Your task to perform on an android device: turn on improve location accuracy Image 0: 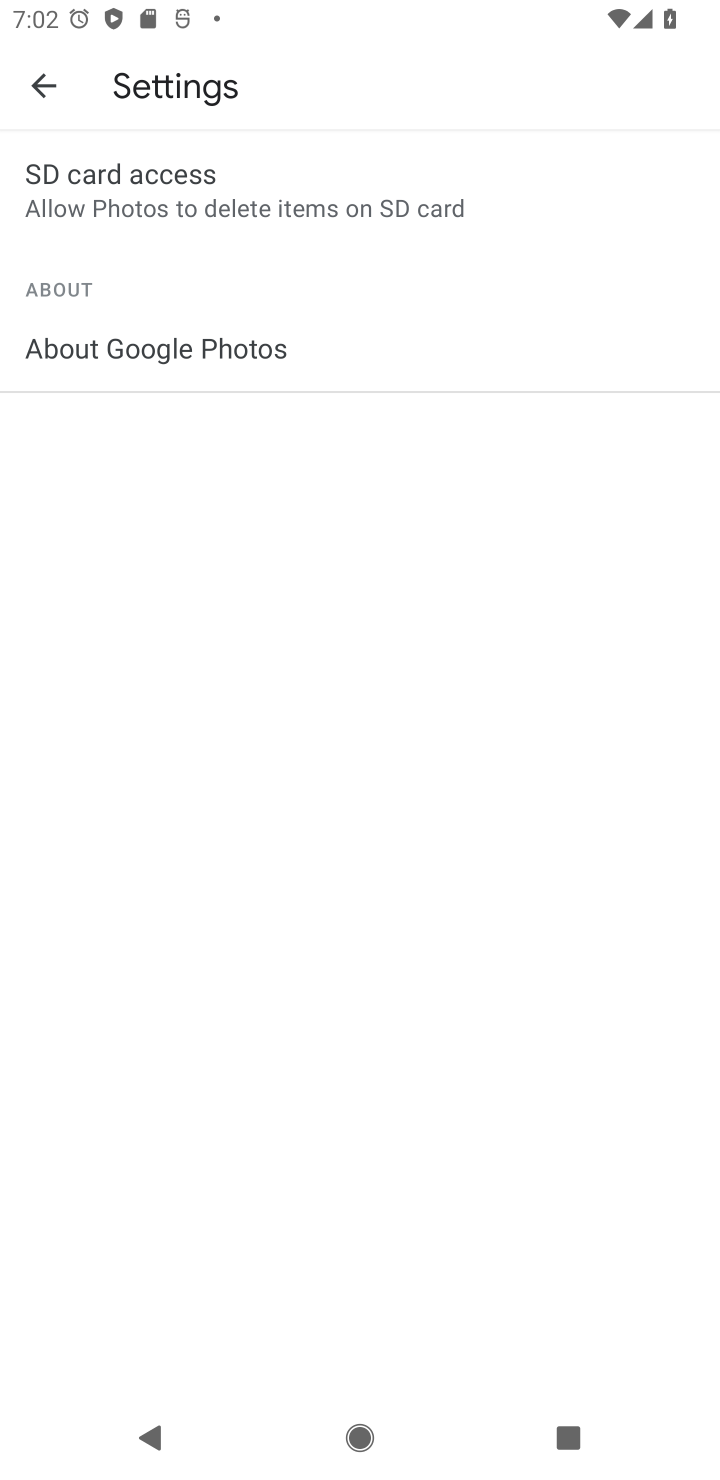
Step 0: press home button
Your task to perform on an android device: turn on improve location accuracy Image 1: 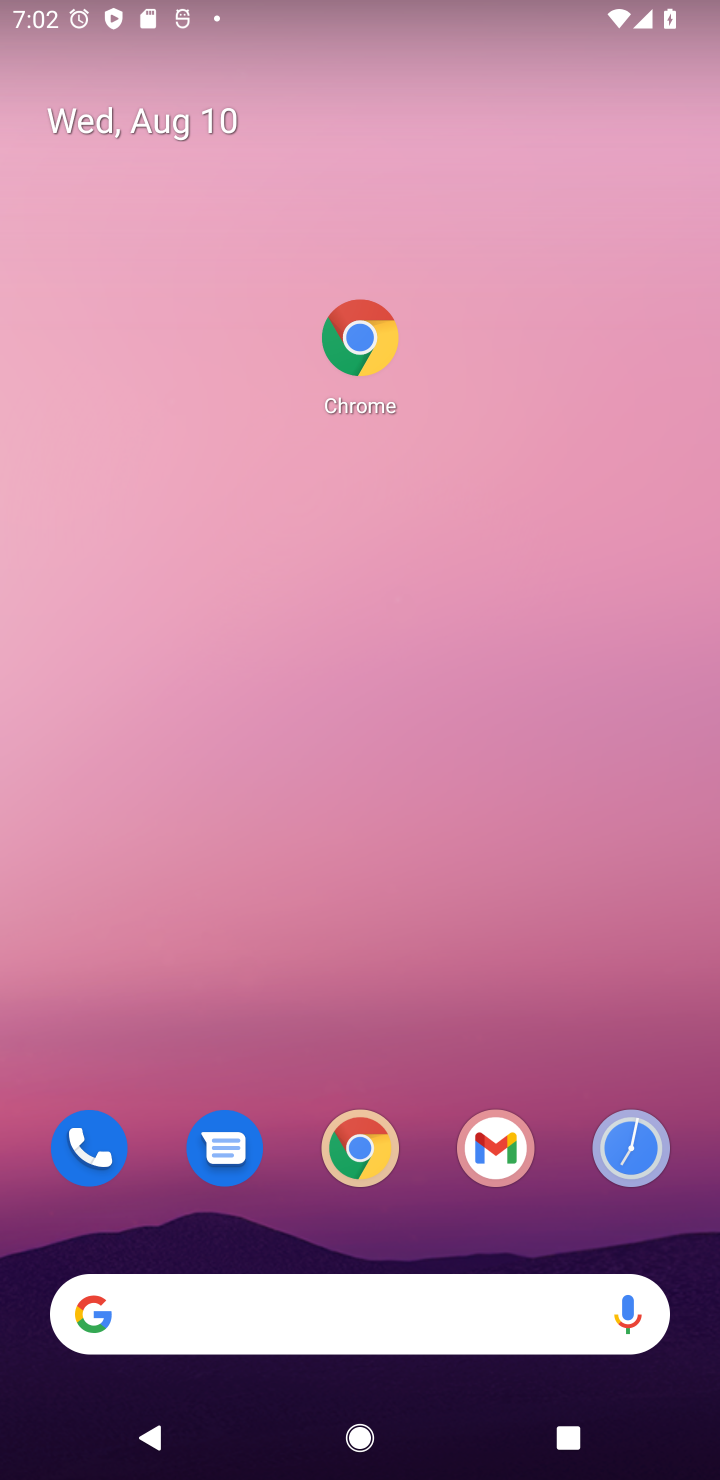
Step 1: drag from (305, 1046) to (253, 360)
Your task to perform on an android device: turn on improve location accuracy Image 2: 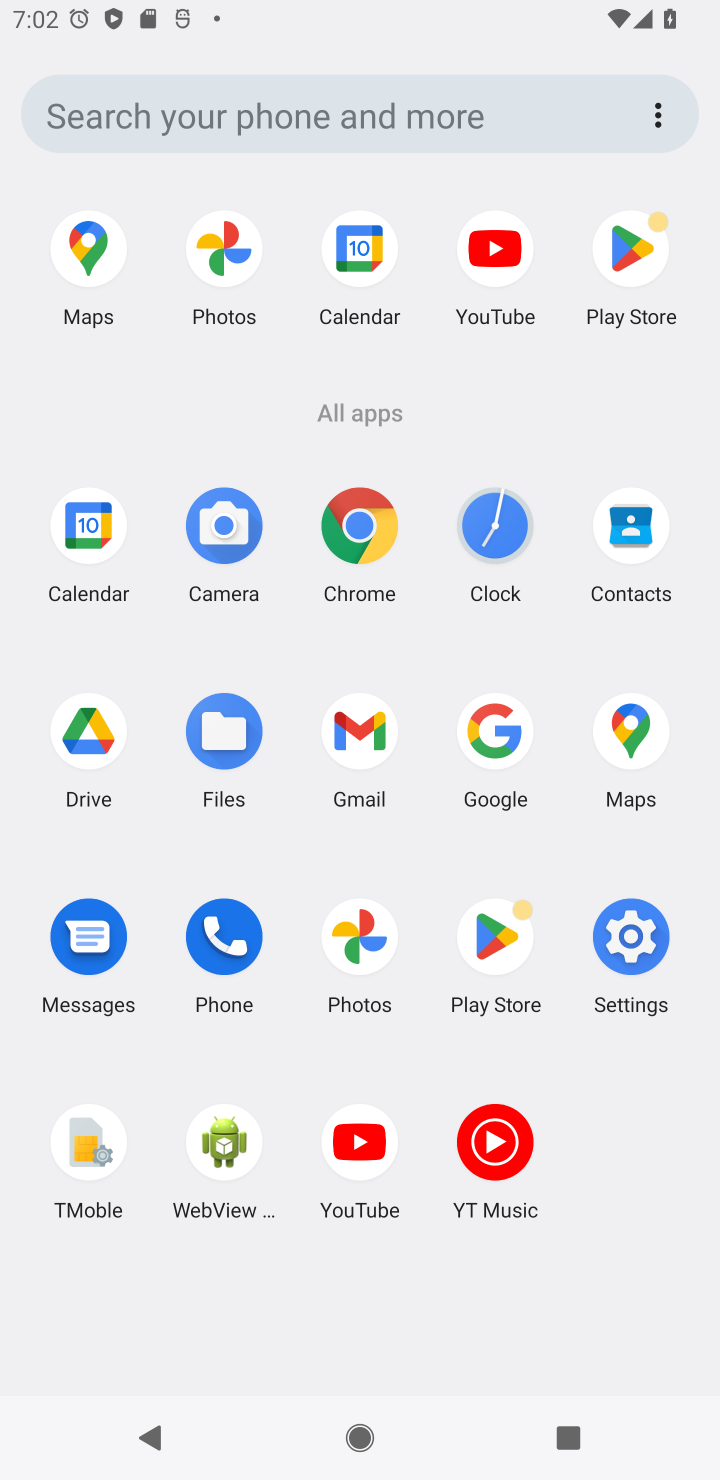
Step 2: click (622, 963)
Your task to perform on an android device: turn on improve location accuracy Image 3: 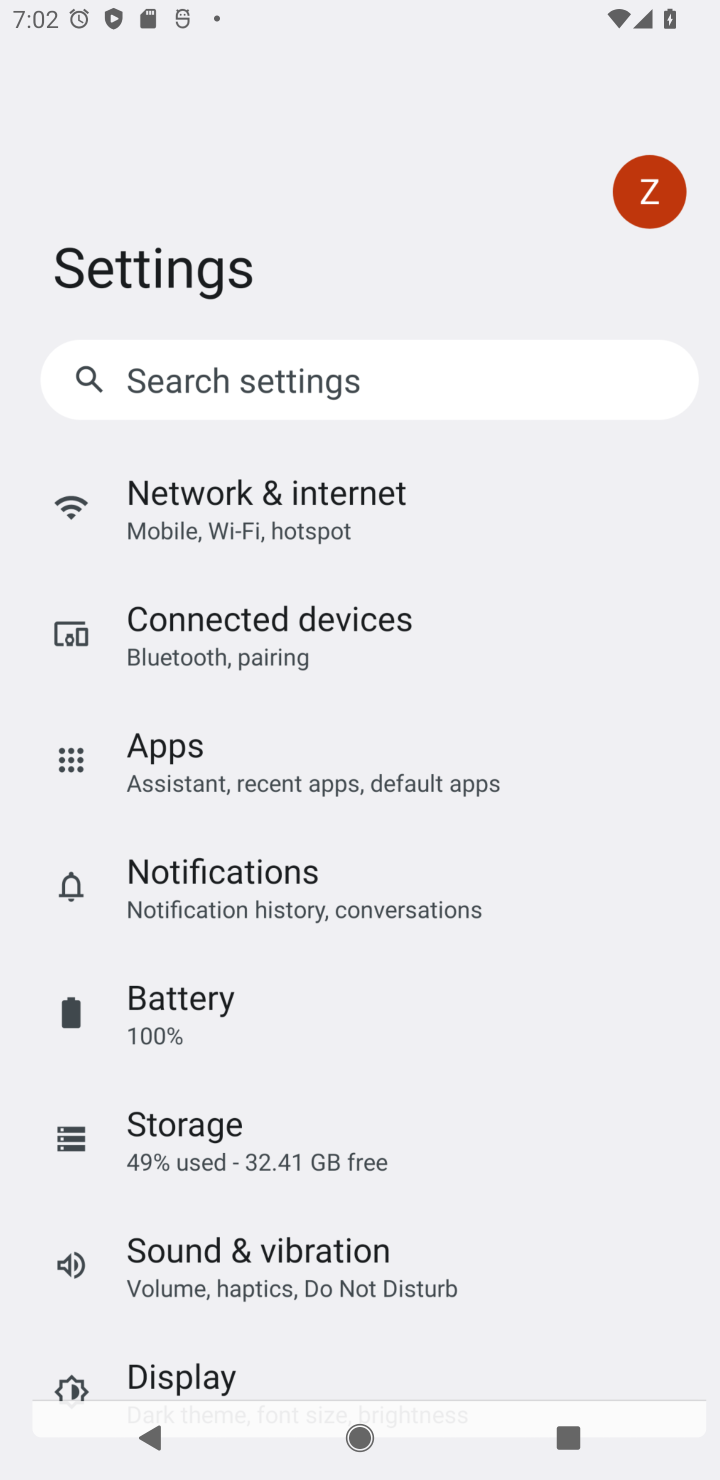
Step 3: click (622, 963)
Your task to perform on an android device: turn on improve location accuracy Image 4: 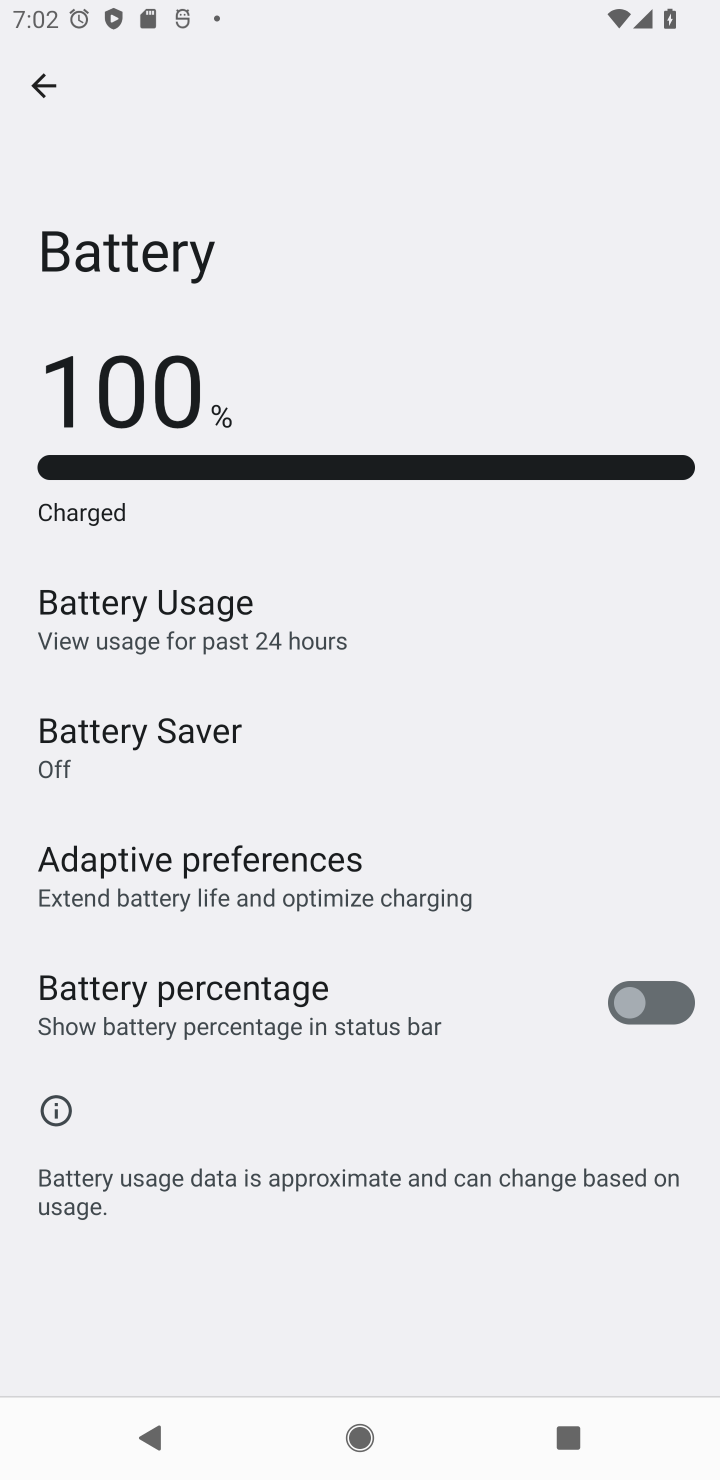
Step 4: click (42, 72)
Your task to perform on an android device: turn on improve location accuracy Image 5: 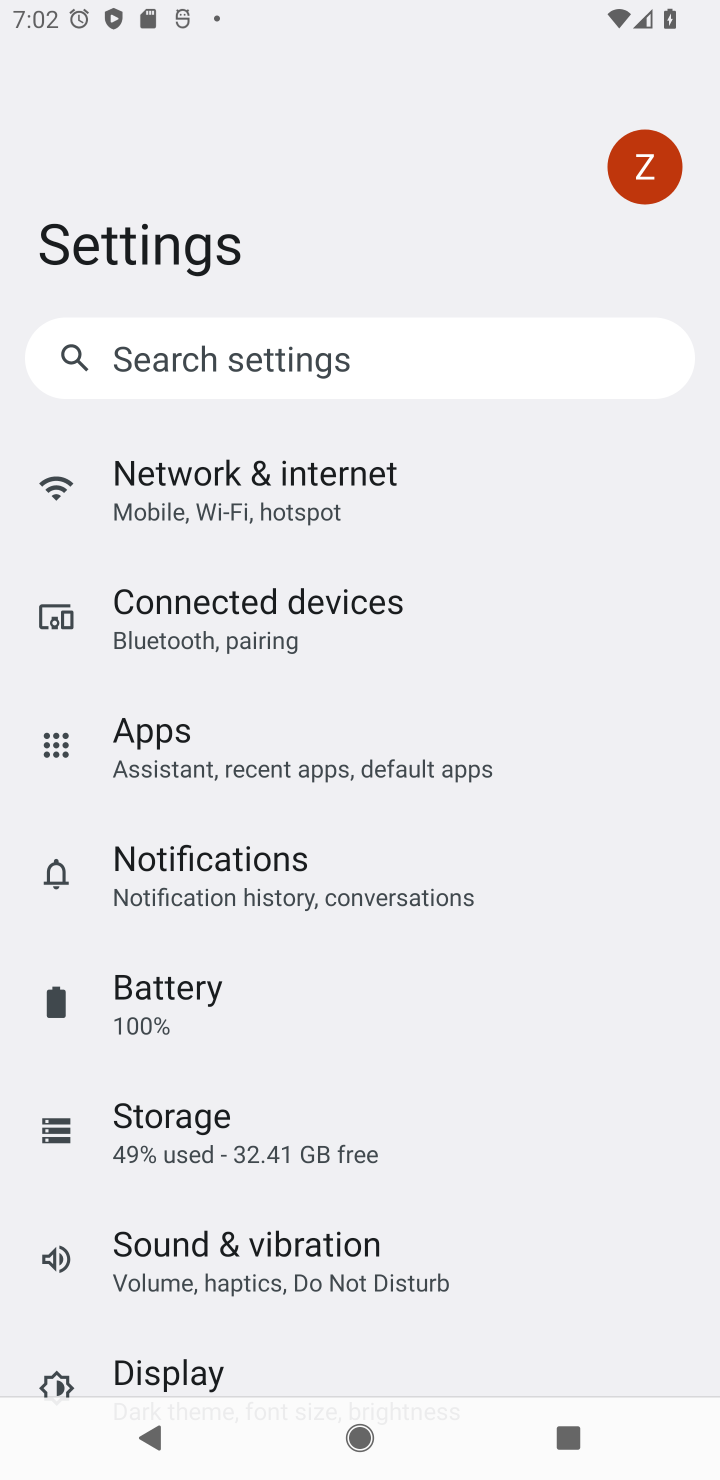
Step 5: drag from (308, 1065) to (134, 332)
Your task to perform on an android device: turn on improve location accuracy Image 6: 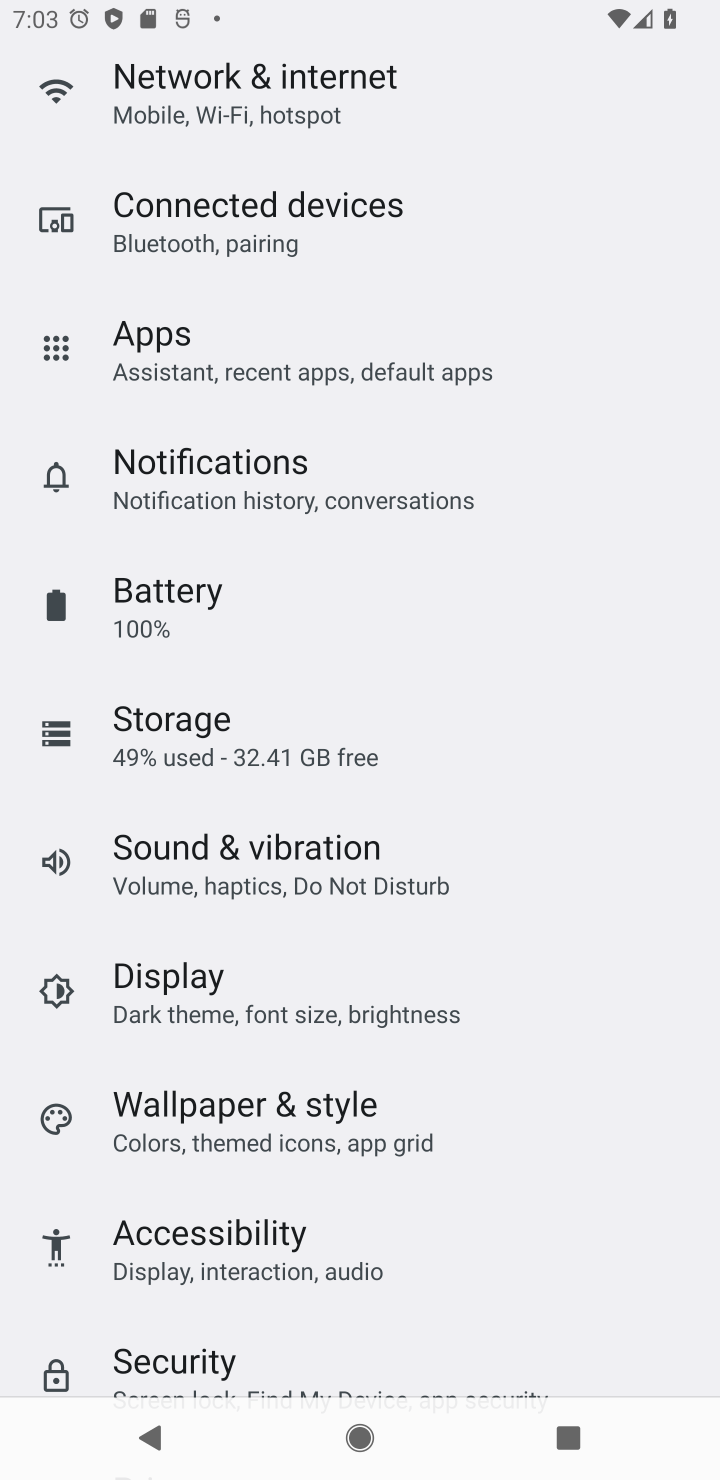
Step 6: drag from (585, 1139) to (485, 560)
Your task to perform on an android device: turn on improve location accuracy Image 7: 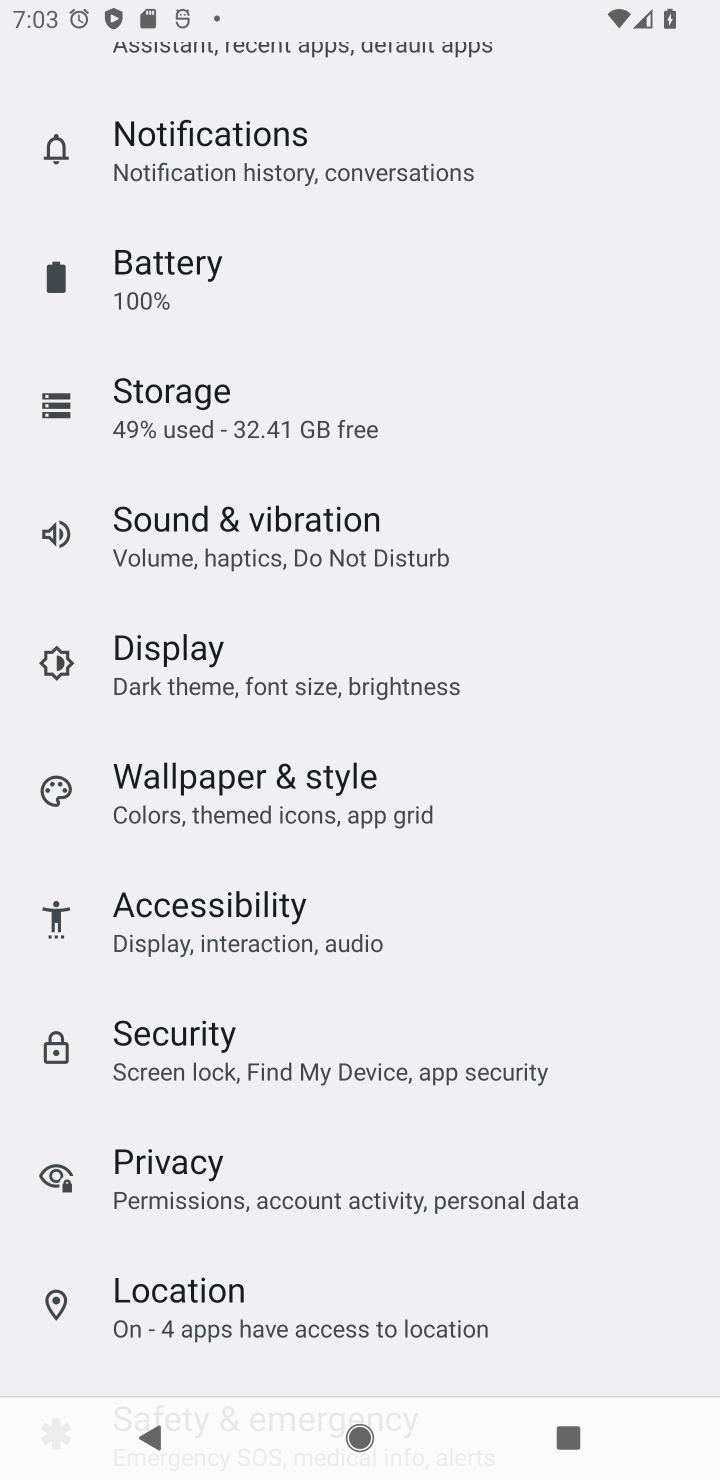
Step 7: click (200, 1327)
Your task to perform on an android device: turn on improve location accuracy Image 8: 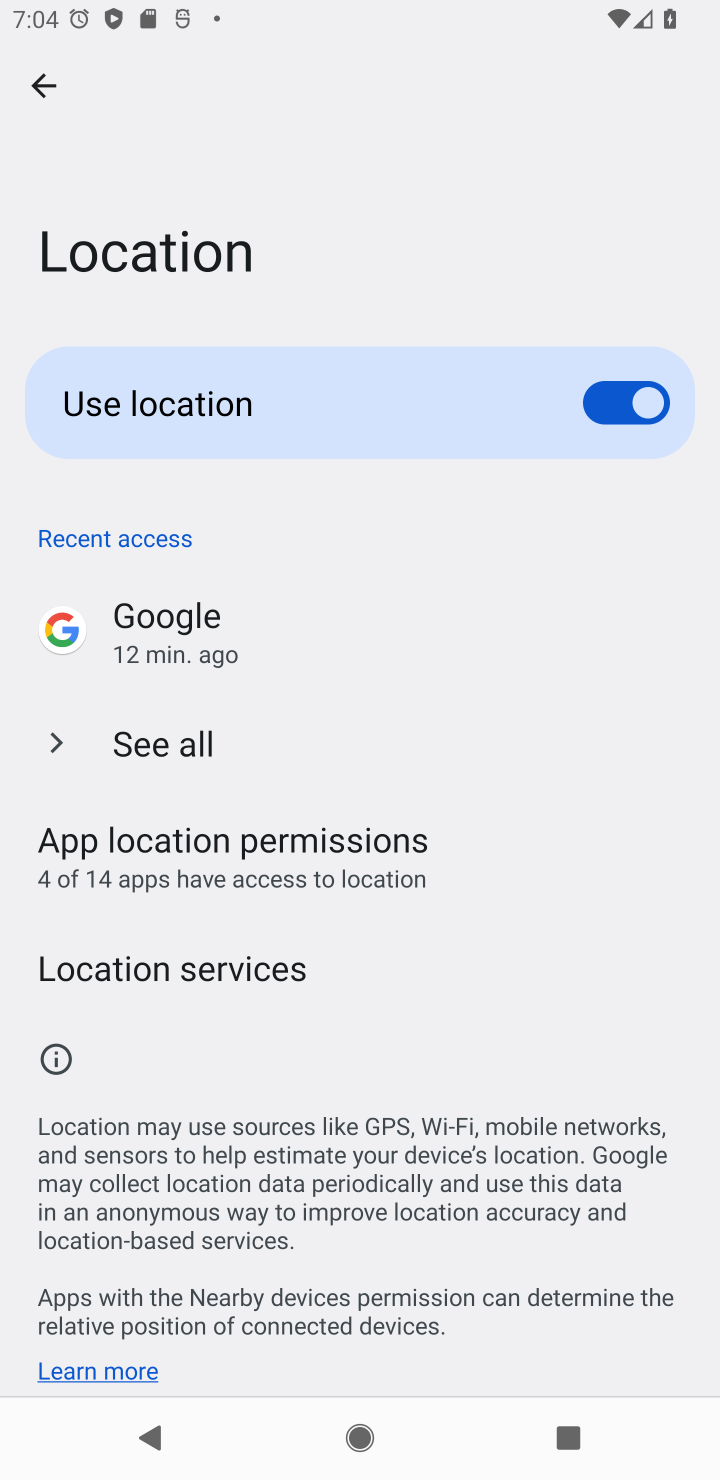
Step 8: click (190, 984)
Your task to perform on an android device: turn on improve location accuracy Image 9: 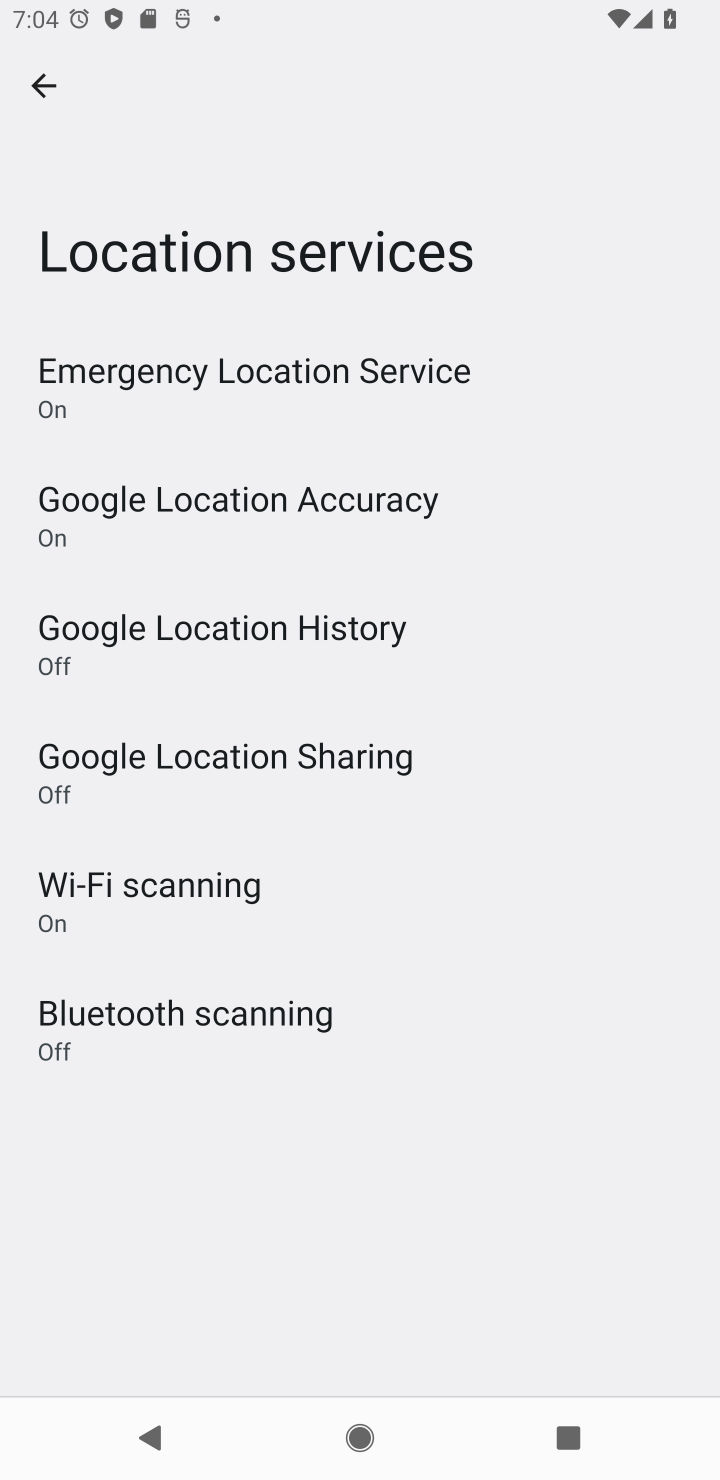
Step 9: click (248, 511)
Your task to perform on an android device: turn on improve location accuracy Image 10: 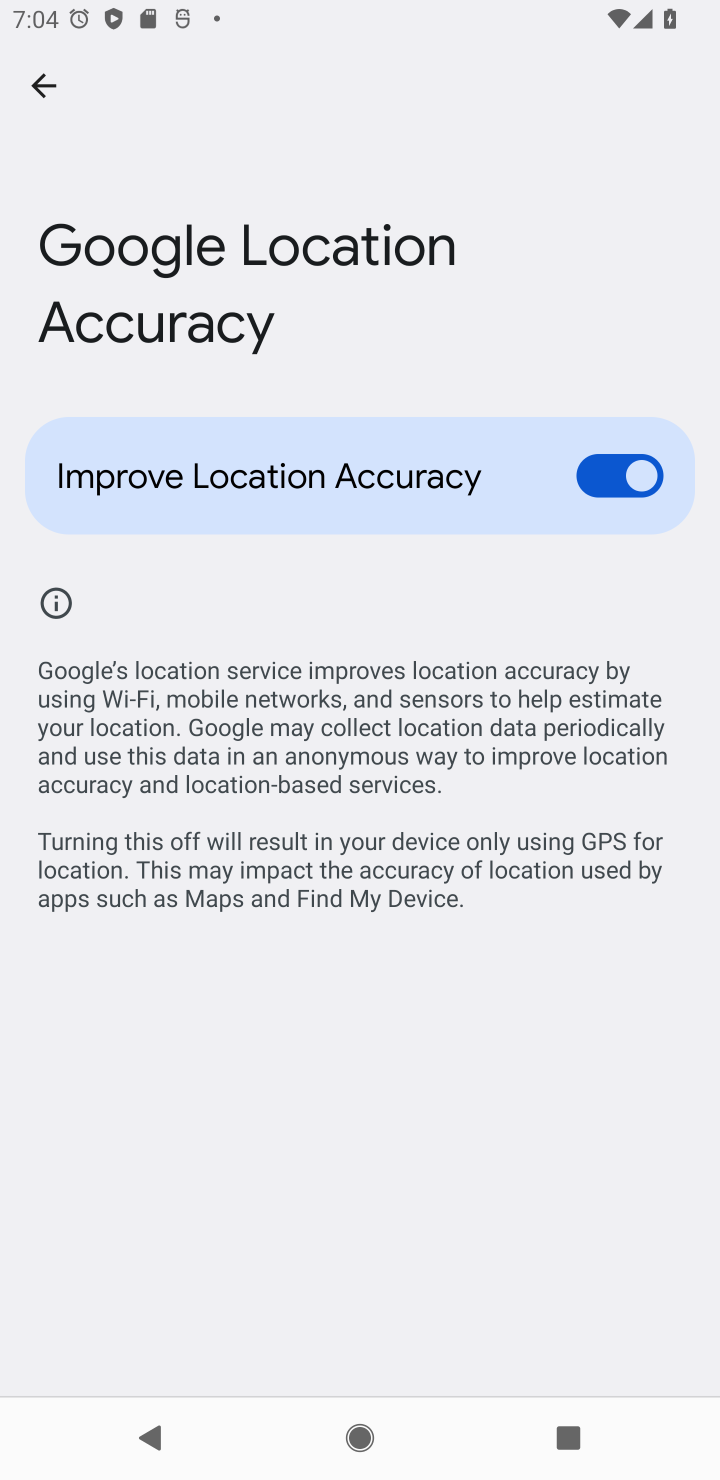
Step 10: task complete